Your task to perform on an android device: Clear the cart on target. Search for "beats solo 3" on target, select the first entry, and add it to the cart. Image 0: 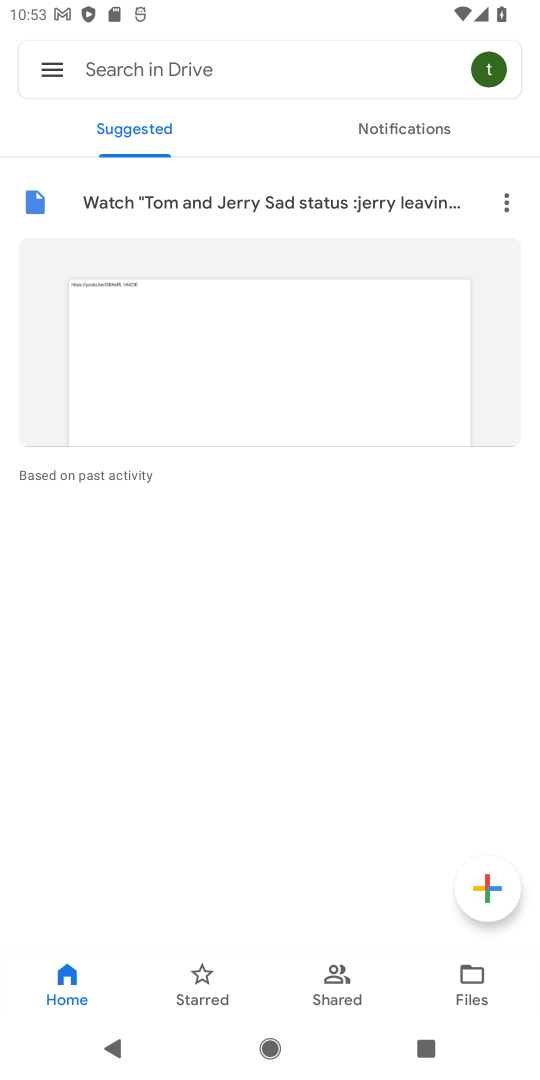
Step 0: press home button
Your task to perform on an android device: Clear the cart on target. Search for "beats solo 3" on target, select the first entry, and add it to the cart. Image 1: 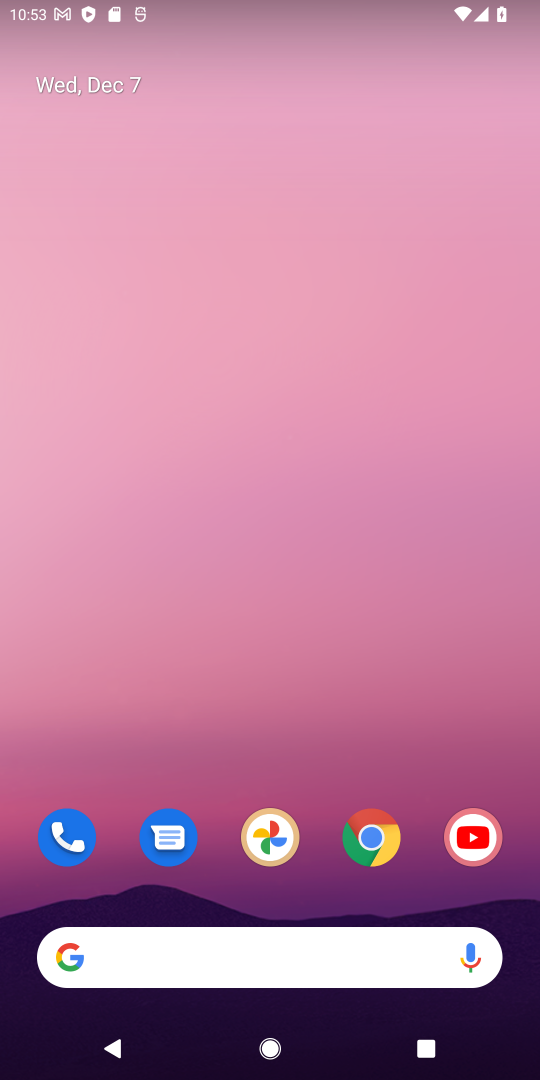
Step 1: click (364, 845)
Your task to perform on an android device: Clear the cart on target. Search for "beats solo 3" on target, select the first entry, and add it to the cart. Image 2: 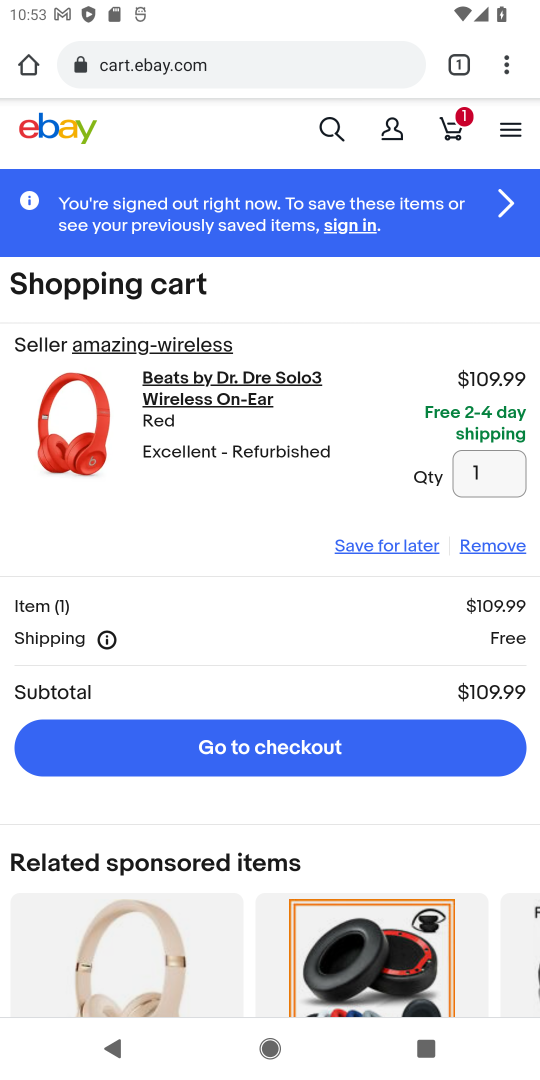
Step 2: click (257, 52)
Your task to perform on an android device: Clear the cart on target. Search for "beats solo 3" on target, select the first entry, and add it to the cart. Image 3: 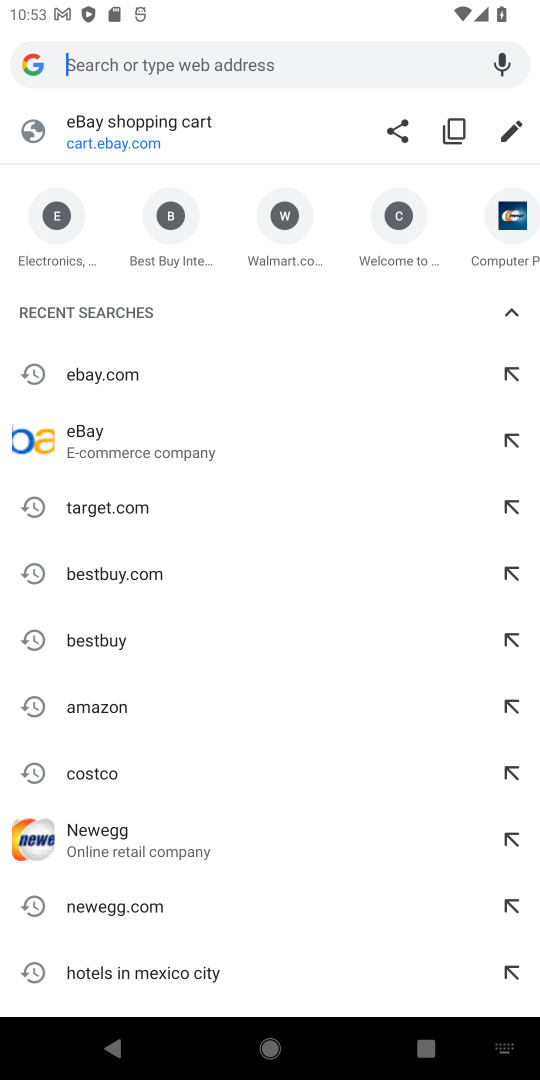
Step 3: type "target"
Your task to perform on an android device: Clear the cart on target. Search for "beats solo 3" on target, select the first entry, and add it to the cart. Image 4: 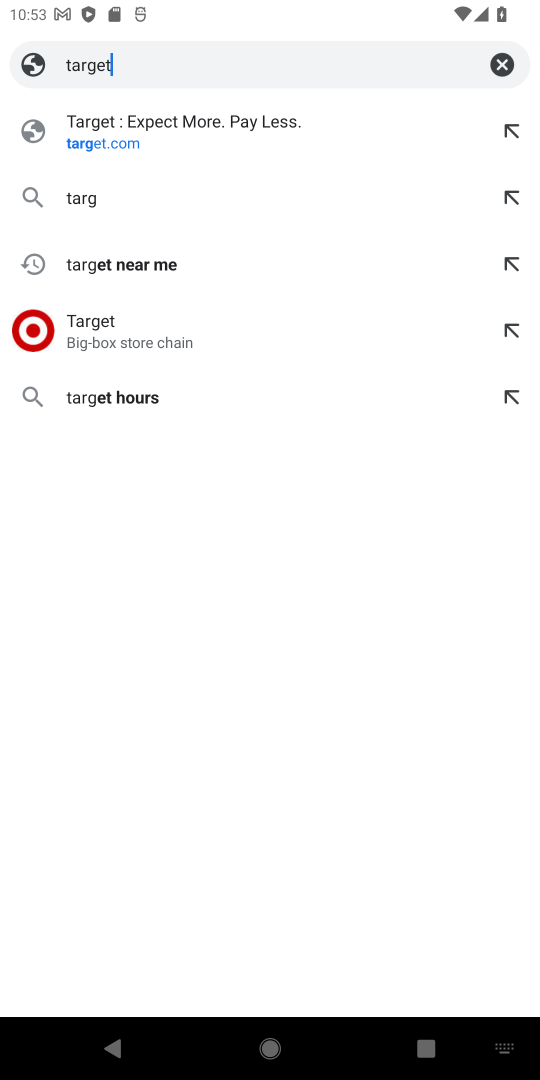
Step 4: press enter
Your task to perform on an android device: Clear the cart on target. Search for "beats solo 3" on target, select the first entry, and add it to the cart. Image 5: 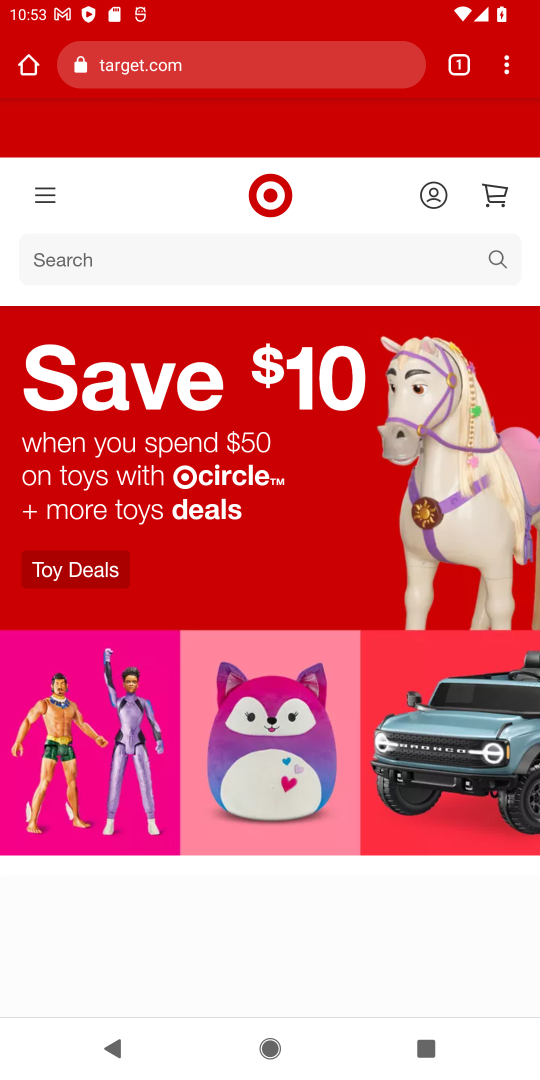
Step 5: click (497, 253)
Your task to perform on an android device: Clear the cart on target. Search for "beats solo 3" on target, select the first entry, and add it to the cart. Image 6: 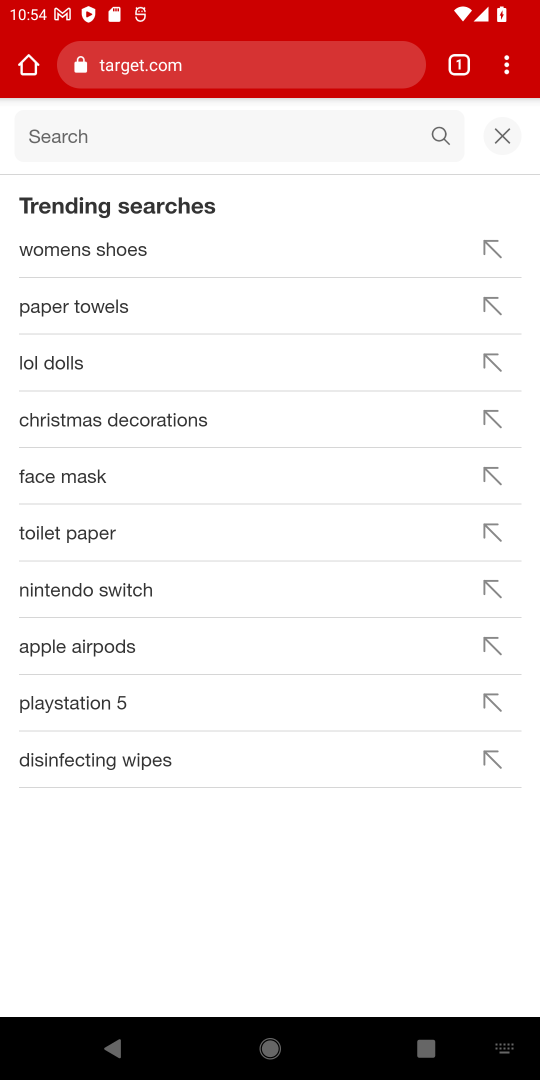
Step 6: press back button
Your task to perform on an android device: Clear the cart on target. Search for "beats solo 3" on target, select the first entry, and add it to the cart. Image 7: 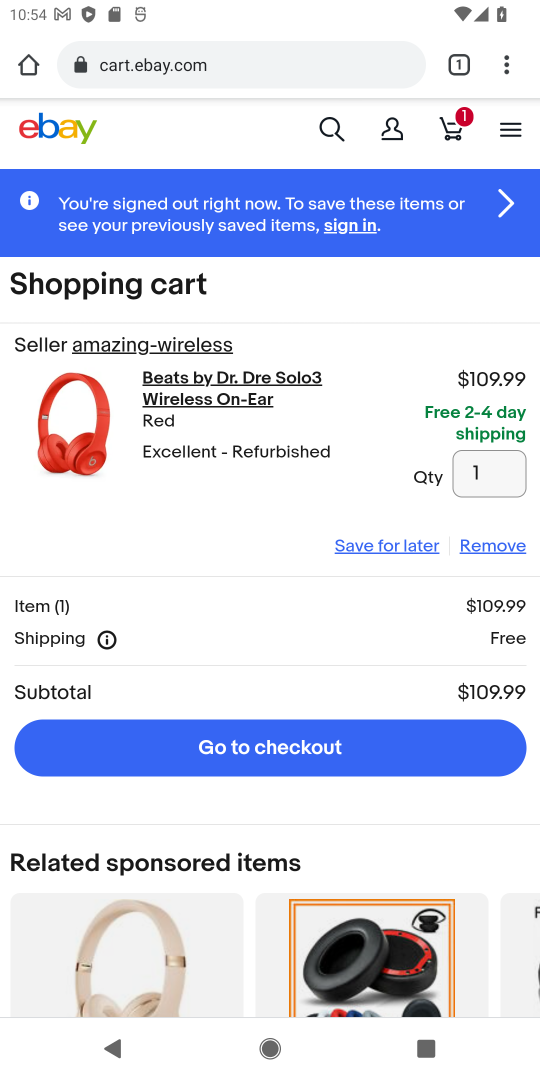
Step 7: click (315, 61)
Your task to perform on an android device: Clear the cart on target. Search for "beats solo 3" on target, select the first entry, and add it to the cart. Image 8: 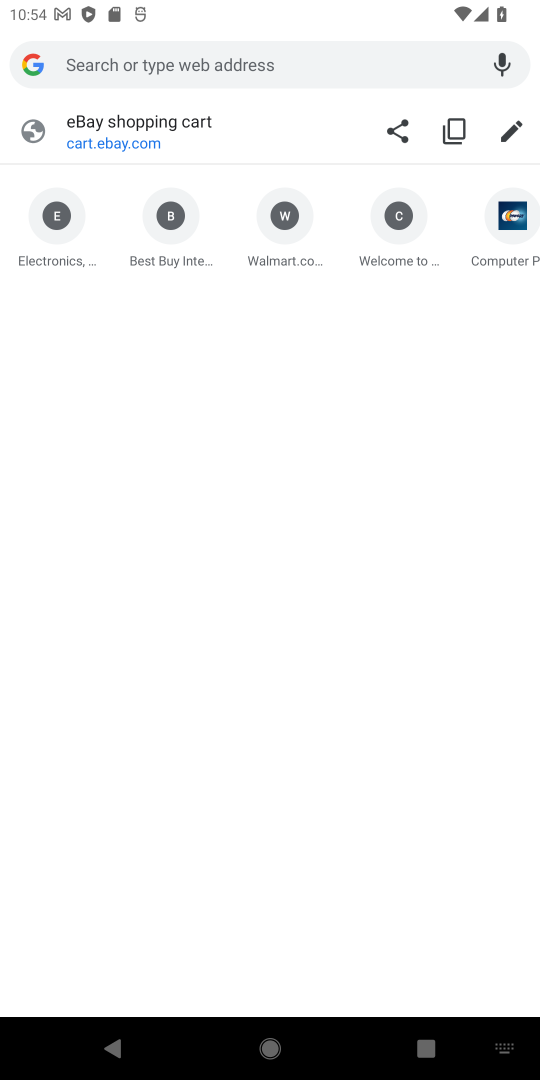
Step 8: type "target"
Your task to perform on an android device: Clear the cart on target. Search for "beats solo 3" on target, select the first entry, and add it to the cart. Image 9: 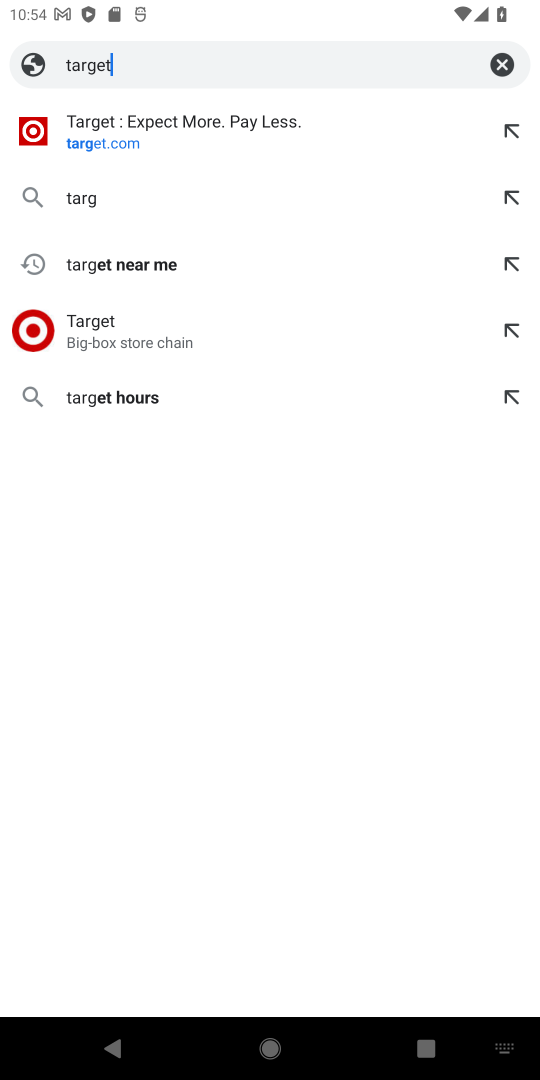
Step 9: press enter
Your task to perform on an android device: Clear the cart on target. Search for "beats solo 3" on target, select the first entry, and add it to the cart. Image 10: 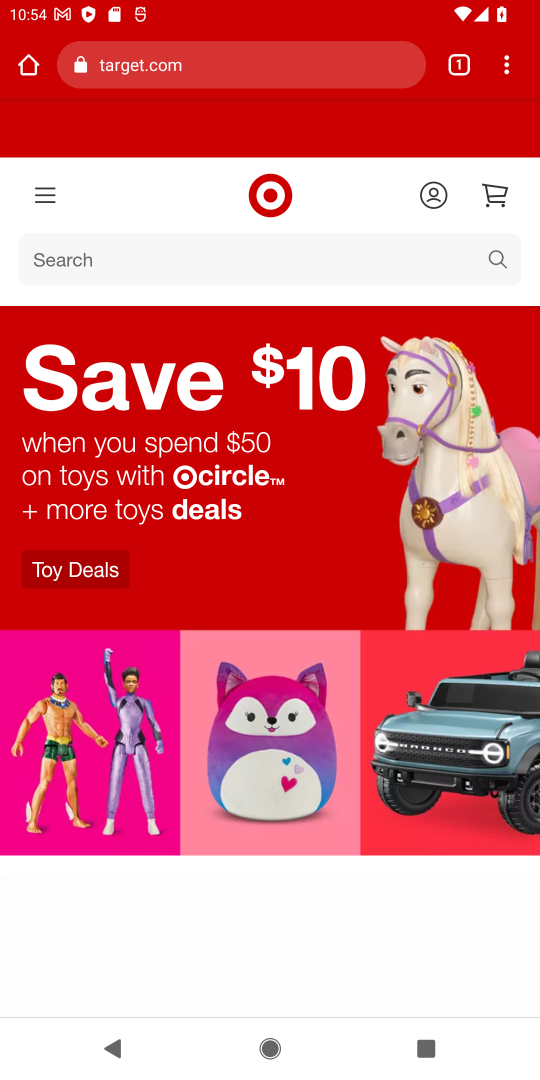
Step 10: click (493, 194)
Your task to perform on an android device: Clear the cart on target. Search for "beats solo 3" on target, select the first entry, and add it to the cart. Image 11: 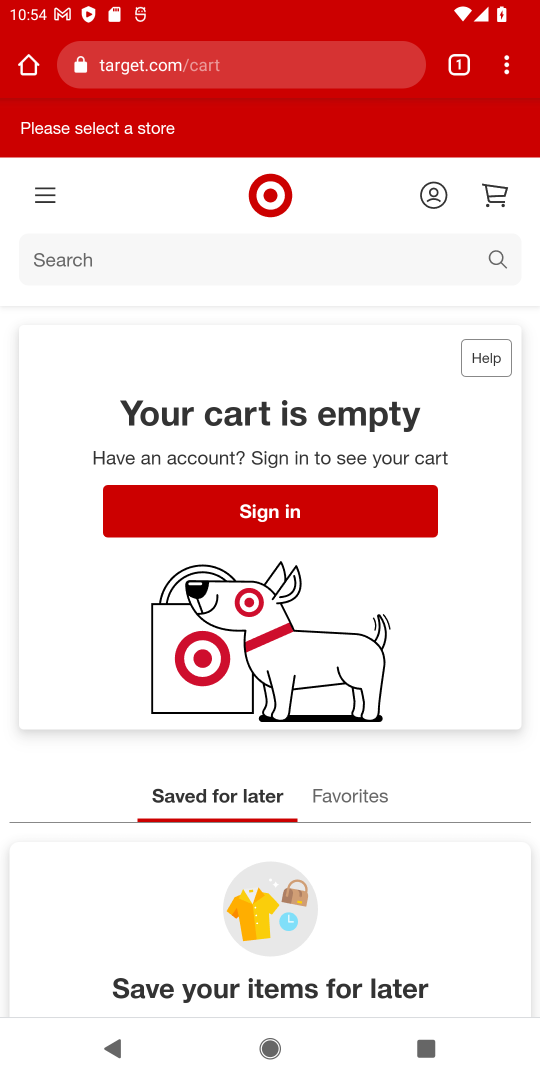
Step 11: click (488, 259)
Your task to perform on an android device: Clear the cart on target. Search for "beats solo 3" on target, select the first entry, and add it to the cart. Image 12: 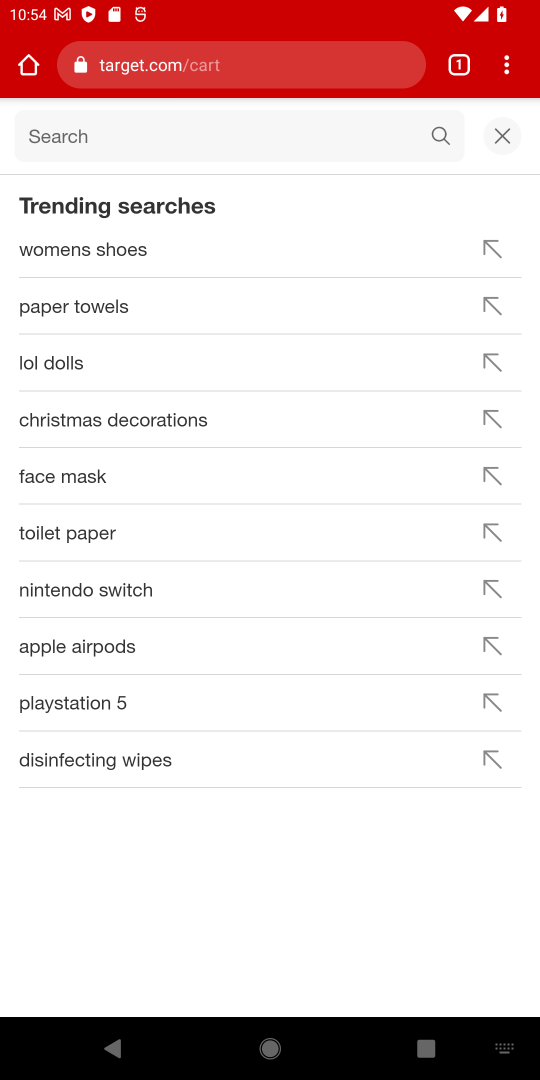
Step 12: type "beats solo 3"
Your task to perform on an android device: Clear the cart on target. Search for "beats solo 3" on target, select the first entry, and add it to the cart. Image 13: 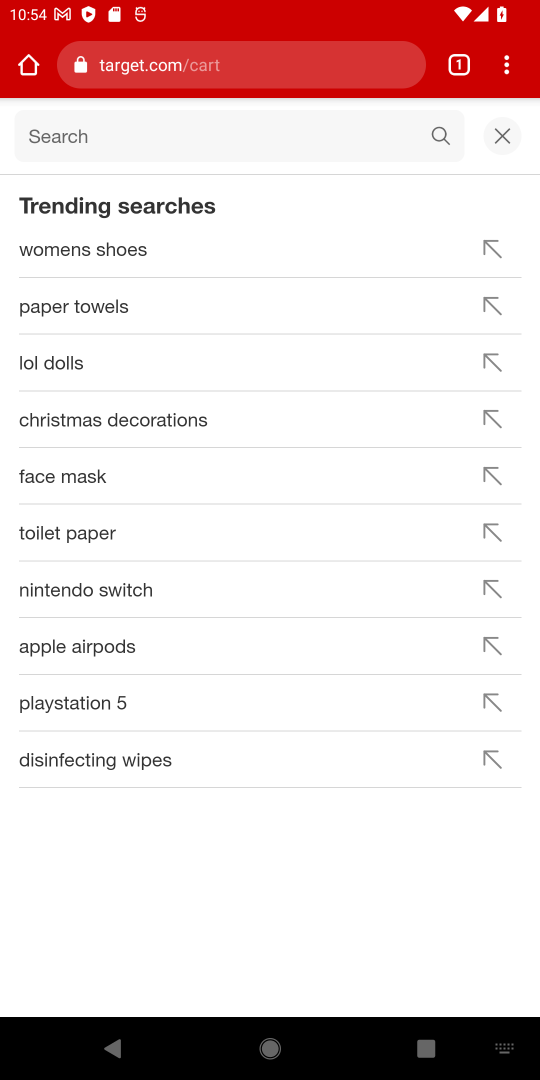
Step 13: press enter
Your task to perform on an android device: Clear the cart on target. Search for "beats solo 3" on target, select the first entry, and add it to the cart. Image 14: 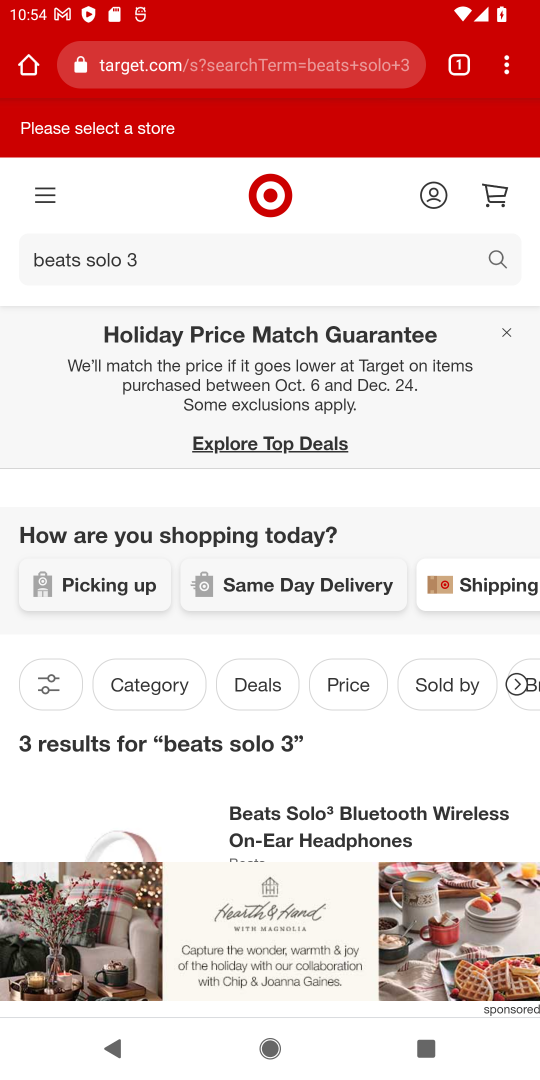
Step 14: task complete